Your task to perform on an android device: Search for hotels in Paris Image 0: 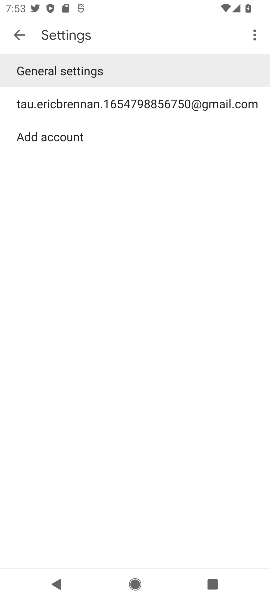
Step 0: press home button
Your task to perform on an android device: Search for hotels in Paris Image 1: 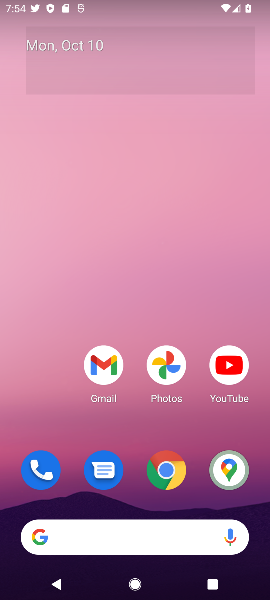
Step 1: click (152, 473)
Your task to perform on an android device: Search for hotels in Paris Image 2: 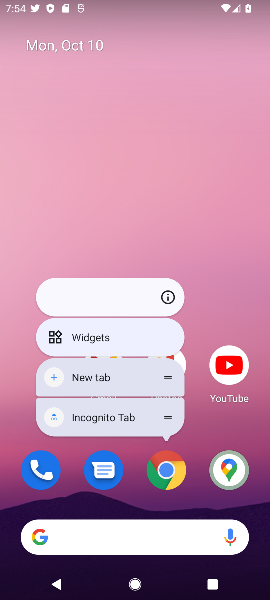
Step 2: click (159, 472)
Your task to perform on an android device: Search for hotels in Paris Image 3: 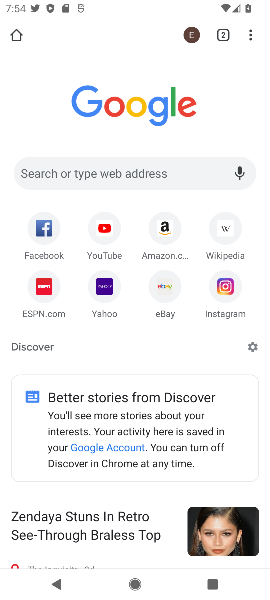
Step 3: click (132, 167)
Your task to perform on an android device: Search for hotels in Paris Image 4: 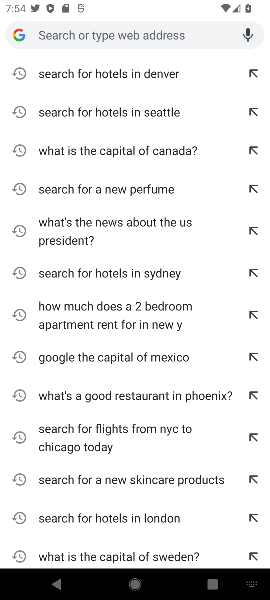
Step 4: type "Search for hotels in Paris"
Your task to perform on an android device: Search for hotels in Paris Image 5: 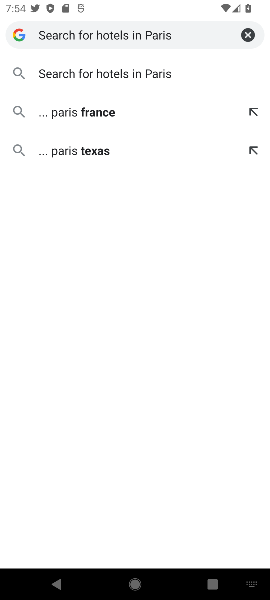
Step 5: click (166, 68)
Your task to perform on an android device: Search for hotels in Paris Image 6: 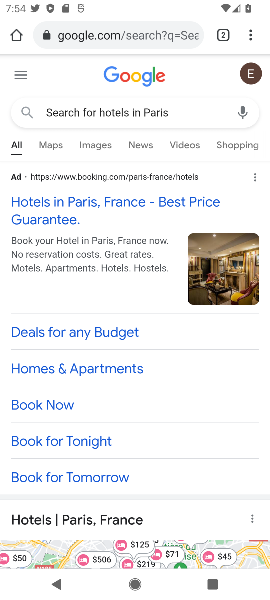
Step 6: task complete